Your task to perform on an android device: turn on improve location accuracy Image 0: 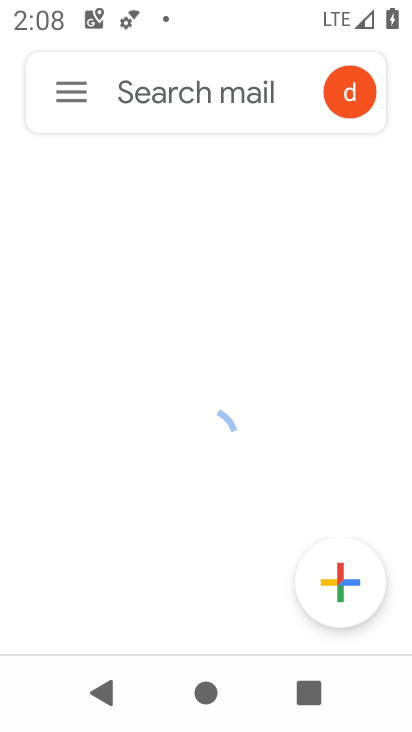
Step 0: press home button
Your task to perform on an android device: turn on improve location accuracy Image 1: 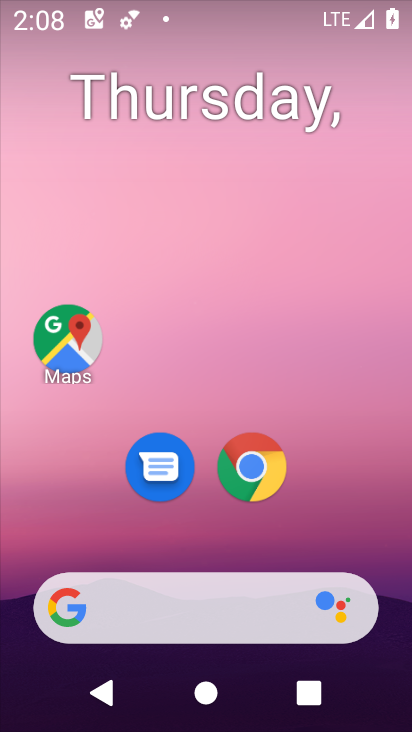
Step 1: drag from (211, 544) to (238, 9)
Your task to perform on an android device: turn on improve location accuracy Image 2: 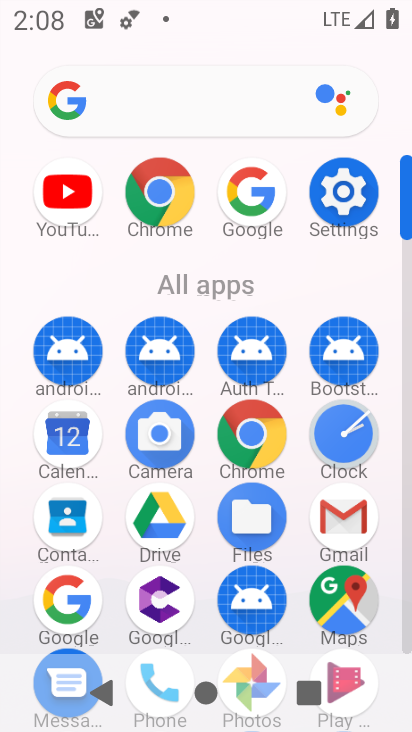
Step 2: click (326, 177)
Your task to perform on an android device: turn on improve location accuracy Image 3: 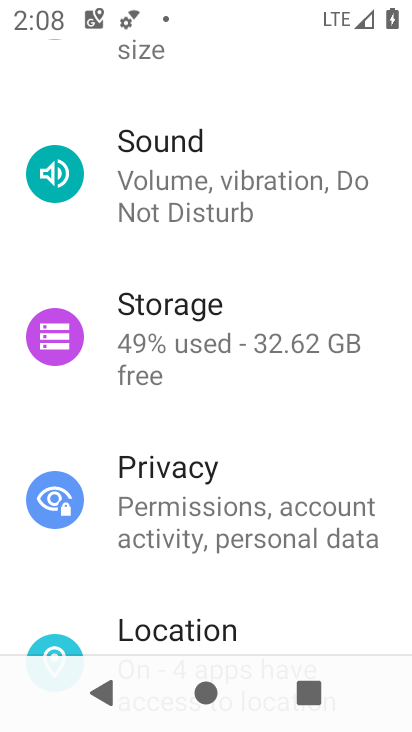
Step 3: click (215, 638)
Your task to perform on an android device: turn on improve location accuracy Image 4: 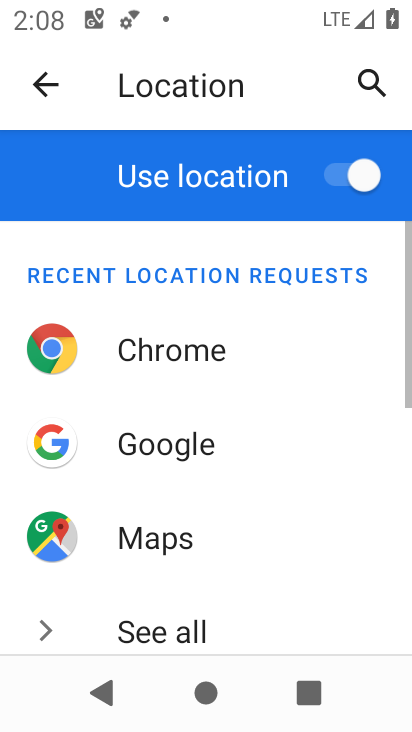
Step 4: drag from (212, 638) to (103, 177)
Your task to perform on an android device: turn on improve location accuracy Image 5: 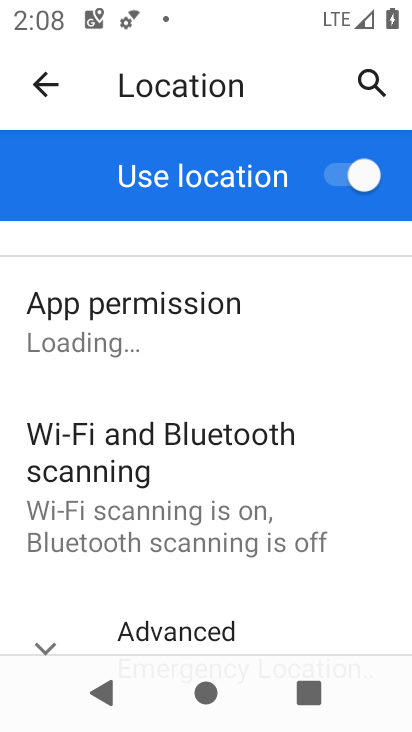
Step 5: drag from (201, 483) to (150, 215)
Your task to perform on an android device: turn on improve location accuracy Image 6: 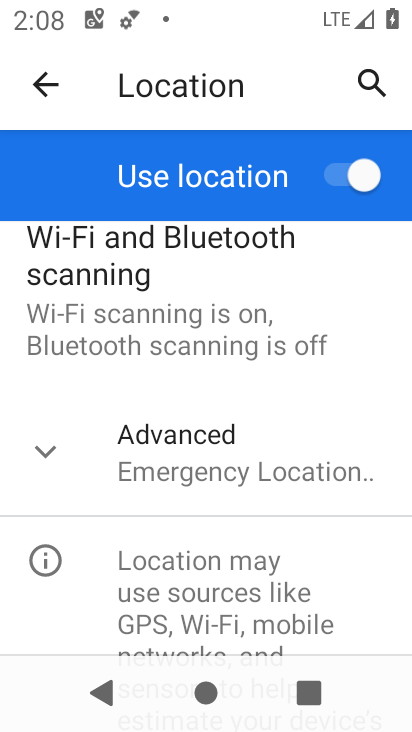
Step 6: click (191, 526)
Your task to perform on an android device: turn on improve location accuracy Image 7: 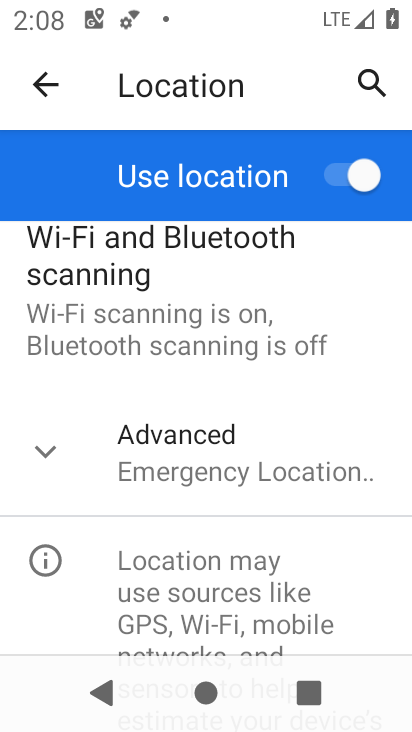
Step 7: click (185, 494)
Your task to perform on an android device: turn on improve location accuracy Image 8: 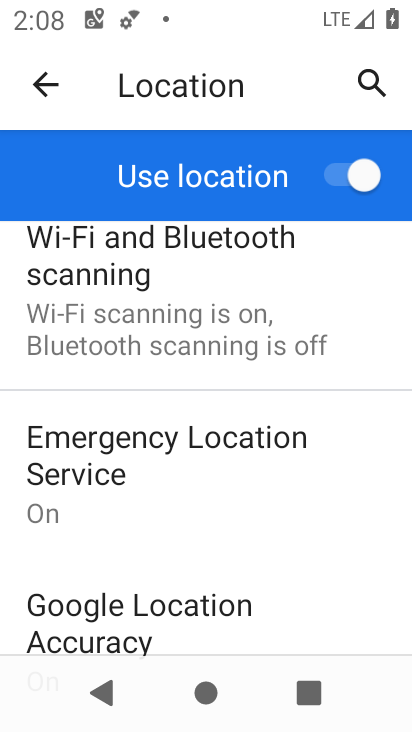
Step 8: drag from (209, 551) to (173, 281)
Your task to perform on an android device: turn on improve location accuracy Image 9: 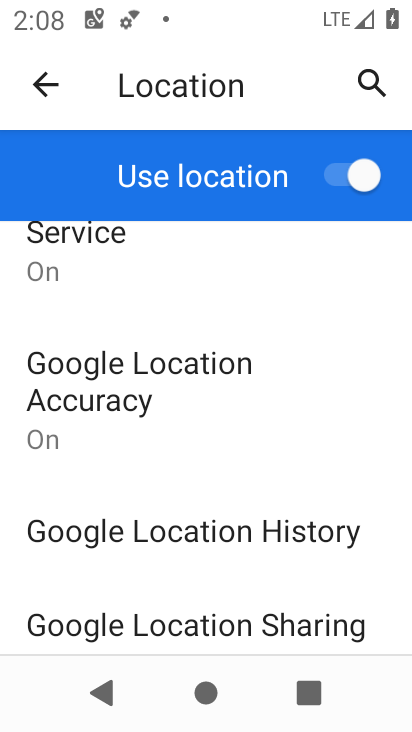
Step 9: click (167, 387)
Your task to perform on an android device: turn on improve location accuracy Image 10: 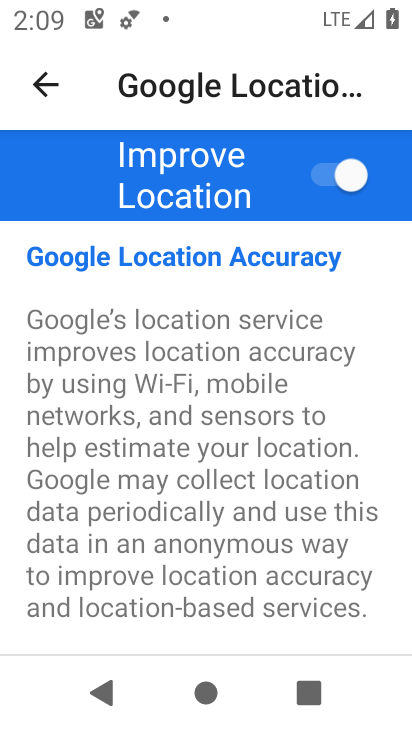
Step 10: task complete